Your task to perform on an android device: Open ESPN.com Image 0: 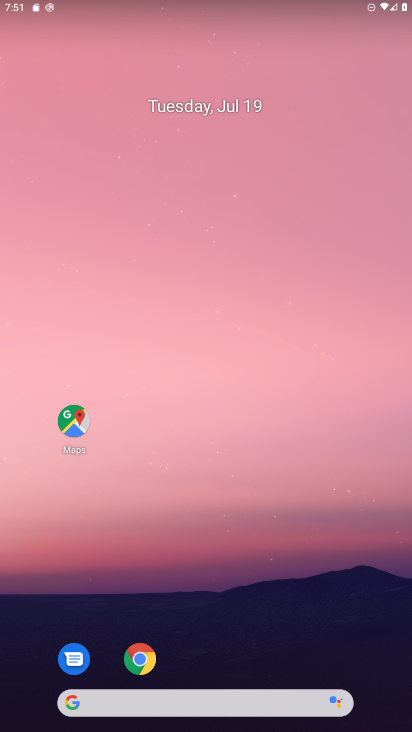
Step 0: drag from (234, 628) to (229, 154)
Your task to perform on an android device: Open ESPN.com Image 1: 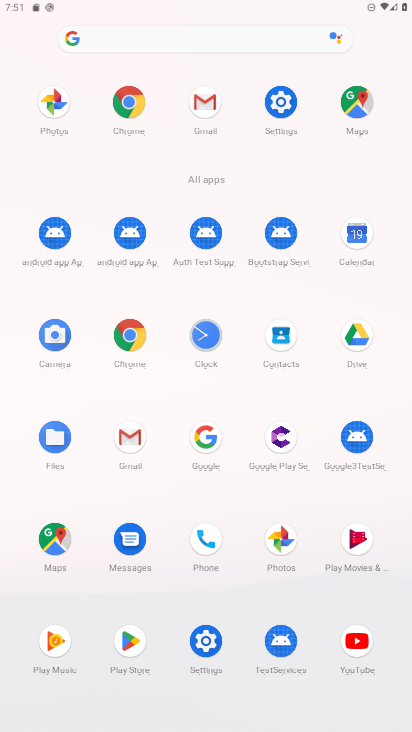
Step 1: click (115, 91)
Your task to perform on an android device: Open ESPN.com Image 2: 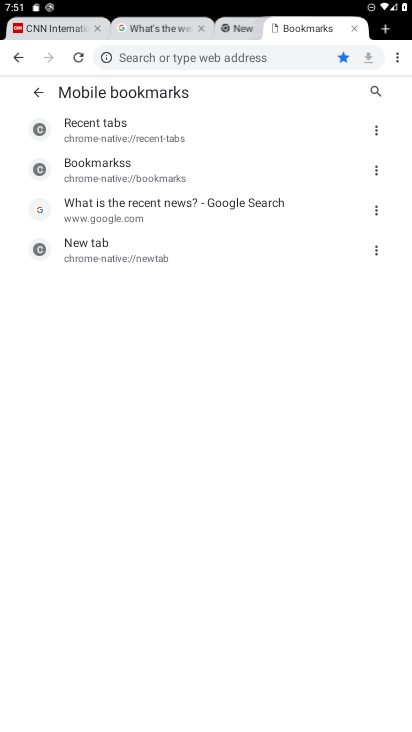
Step 2: click (355, 26)
Your task to perform on an android device: Open ESPN.com Image 3: 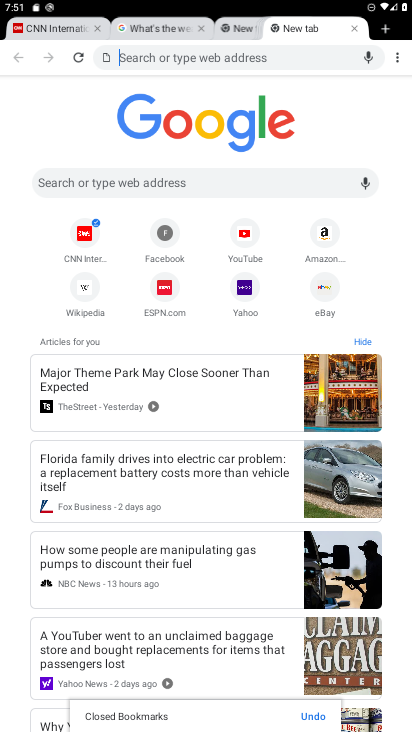
Step 3: click (184, 282)
Your task to perform on an android device: Open ESPN.com Image 4: 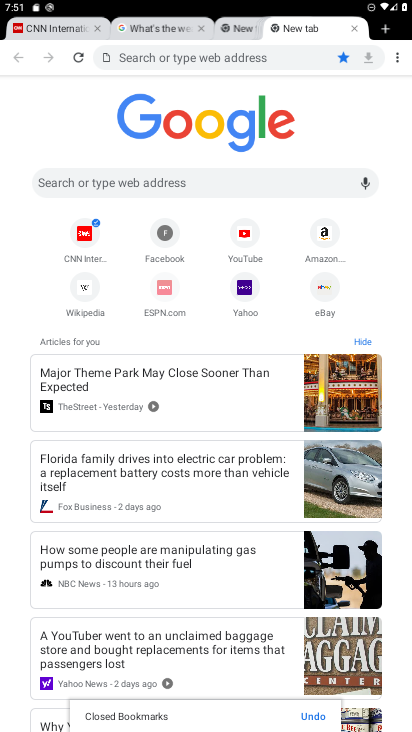
Step 4: click (164, 289)
Your task to perform on an android device: Open ESPN.com Image 5: 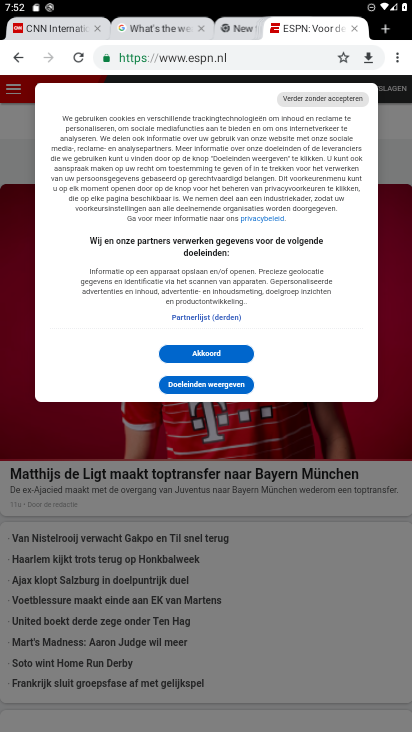
Step 5: task complete